Your task to perform on an android device: allow notifications from all sites in the chrome app Image 0: 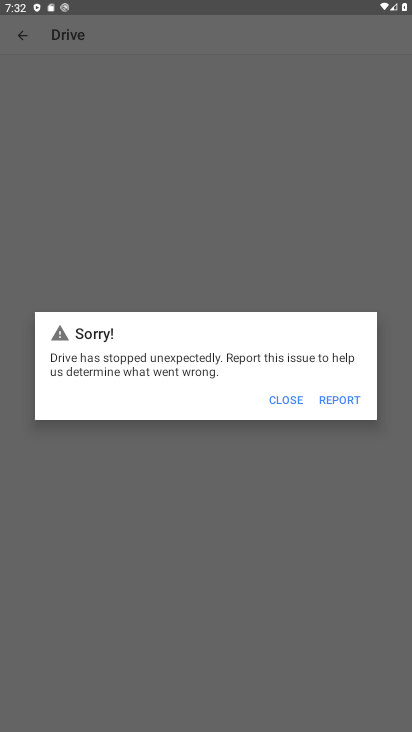
Step 0: press home button
Your task to perform on an android device: allow notifications from all sites in the chrome app Image 1: 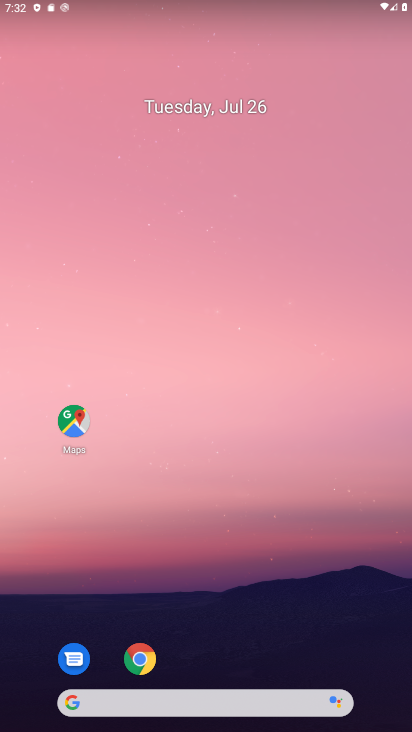
Step 1: drag from (194, 668) to (73, 233)
Your task to perform on an android device: allow notifications from all sites in the chrome app Image 2: 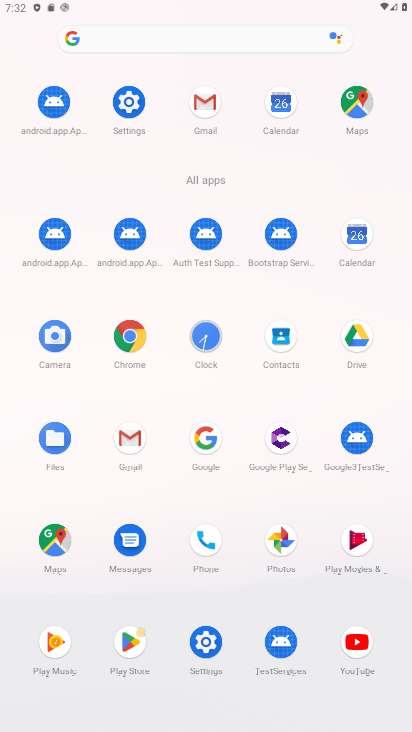
Step 2: click (121, 341)
Your task to perform on an android device: allow notifications from all sites in the chrome app Image 3: 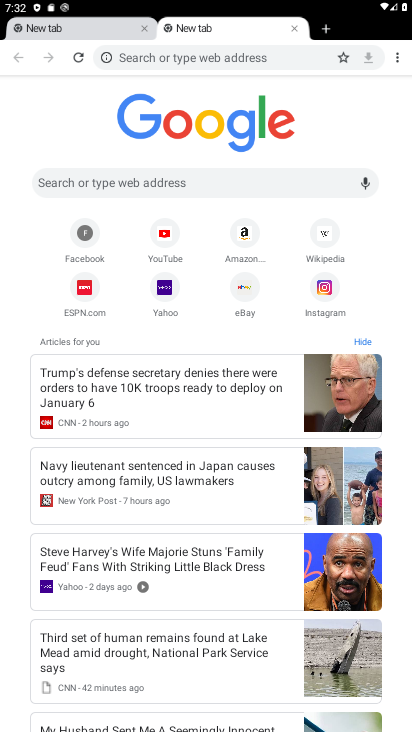
Step 3: click (395, 55)
Your task to perform on an android device: allow notifications from all sites in the chrome app Image 4: 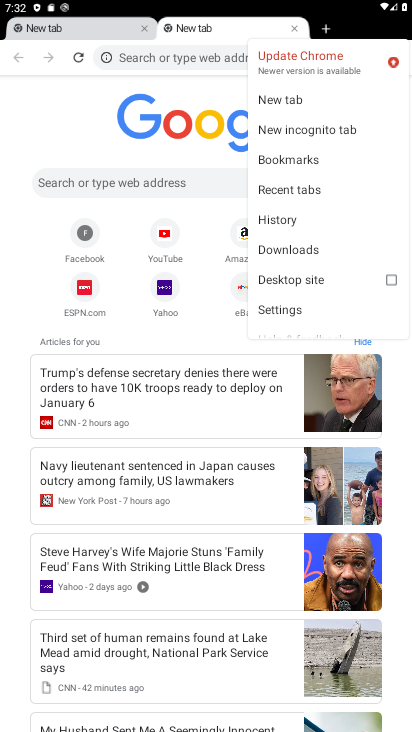
Step 4: click (264, 313)
Your task to perform on an android device: allow notifications from all sites in the chrome app Image 5: 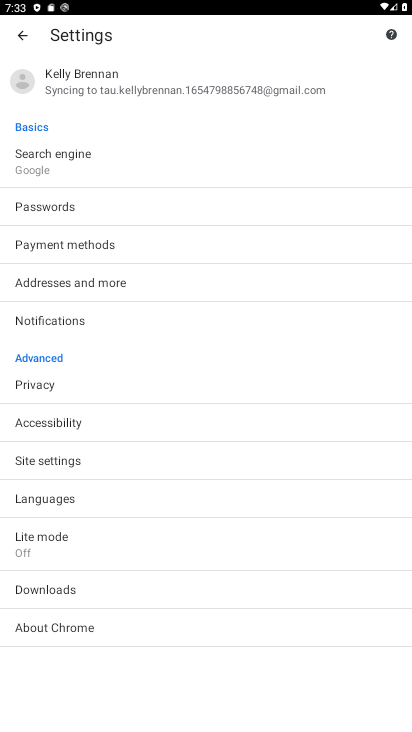
Step 5: click (53, 450)
Your task to perform on an android device: allow notifications from all sites in the chrome app Image 6: 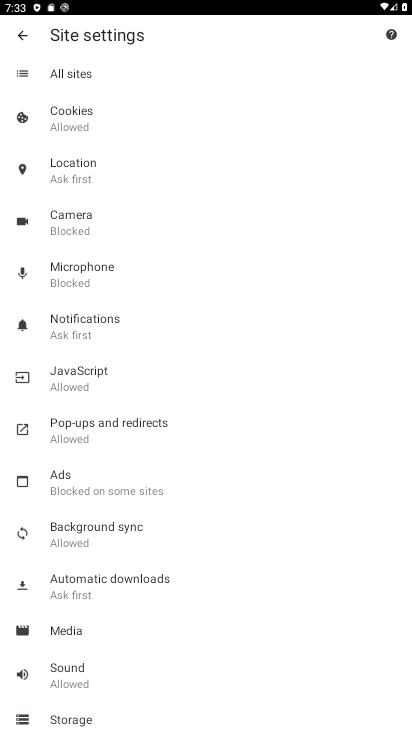
Step 6: click (74, 317)
Your task to perform on an android device: allow notifications from all sites in the chrome app Image 7: 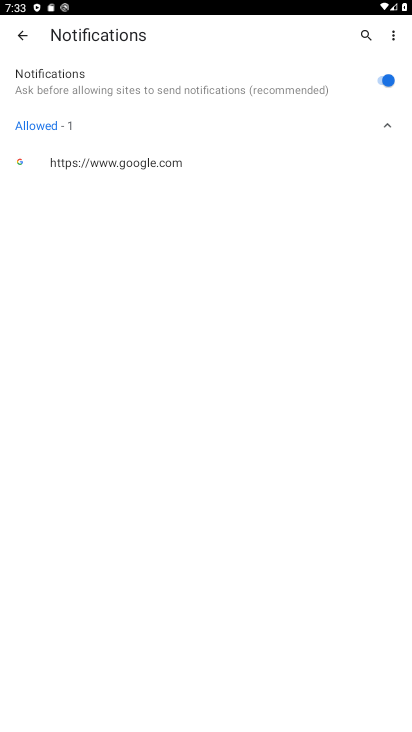
Step 7: task complete